Your task to perform on an android device: turn on wifi Image 0: 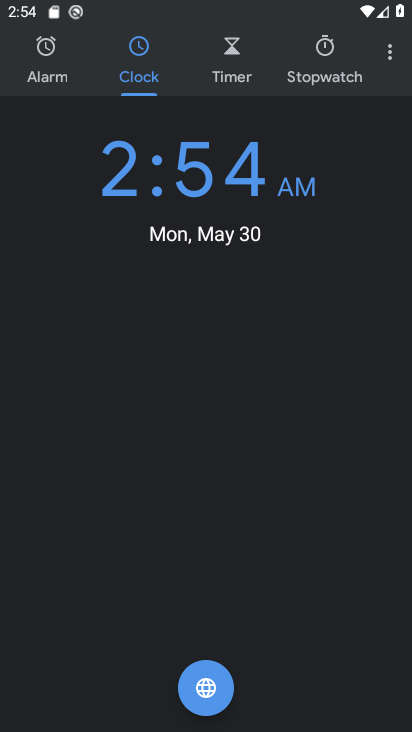
Step 0: drag from (279, 3) to (260, 463)
Your task to perform on an android device: turn on wifi Image 1: 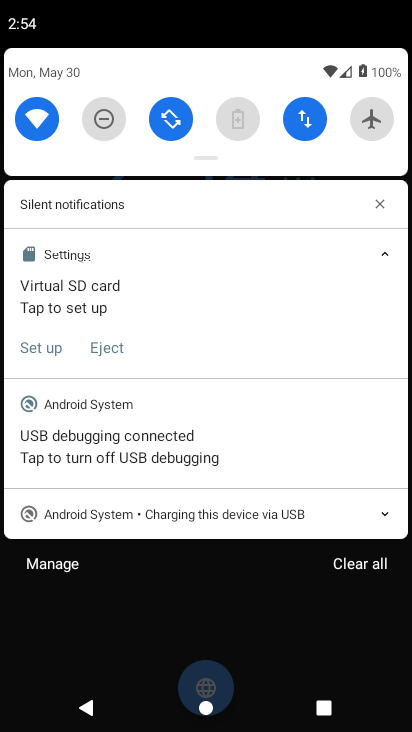
Step 1: task complete